Your task to perform on an android device: toggle translation in the chrome app Image 0: 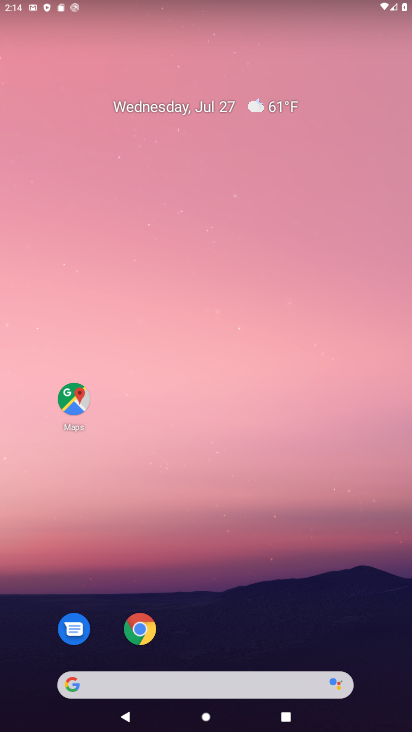
Step 0: drag from (279, 610) to (291, 65)
Your task to perform on an android device: toggle translation in the chrome app Image 1: 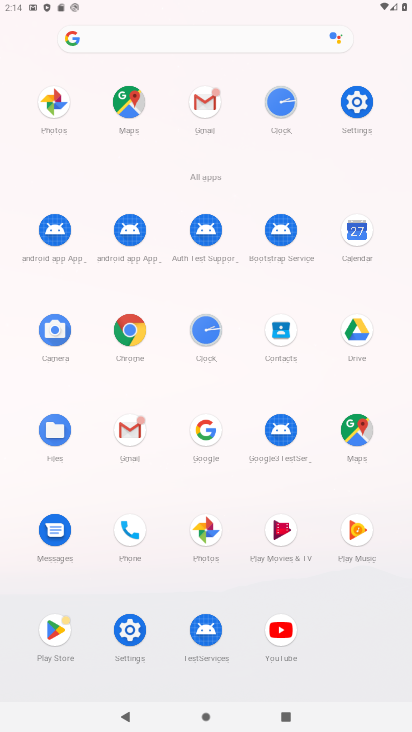
Step 1: click (129, 322)
Your task to perform on an android device: toggle translation in the chrome app Image 2: 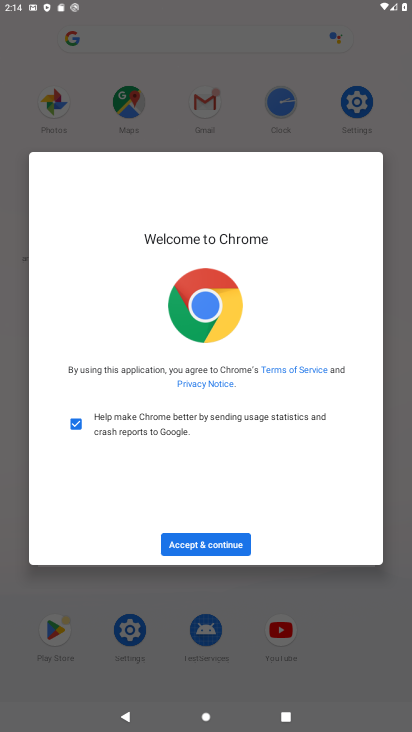
Step 2: click (236, 542)
Your task to perform on an android device: toggle translation in the chrome app Image 3: 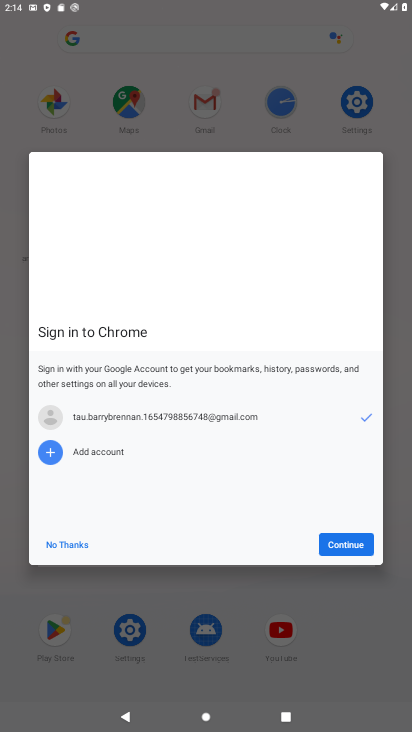
Step 3: click (335, 537)
Your task to perform on an android device: toggle translation in the chrome app Image 4: 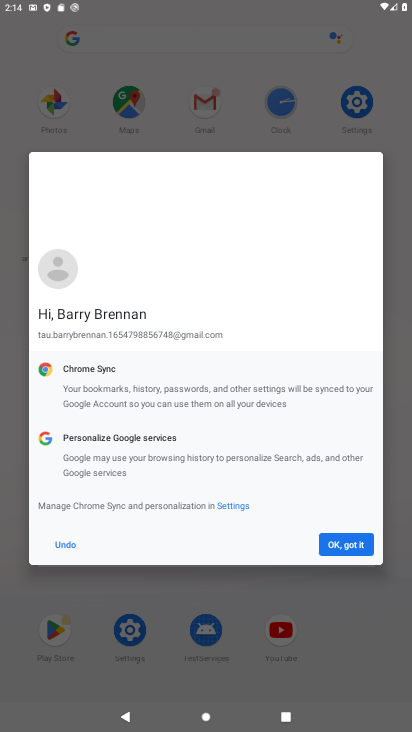
Step 4: click (335, 537)
Your task to perform on an android device: toggle translation in the chrome app Image 5: 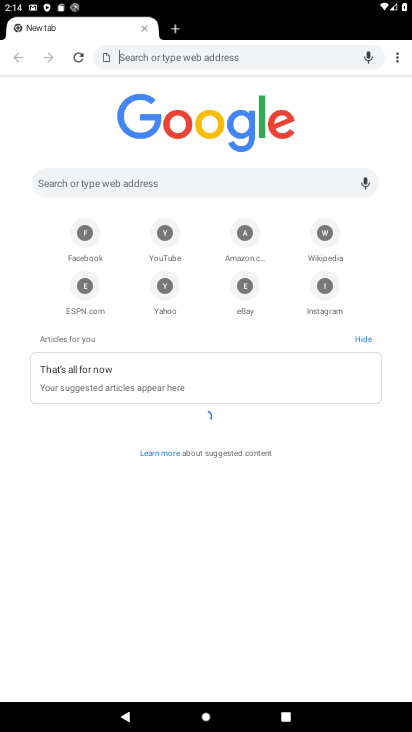
Step 5: drag from (392, 59) to (278, 262)
Your task to perform on an android device: toggle translation in the chrome app Image 6: 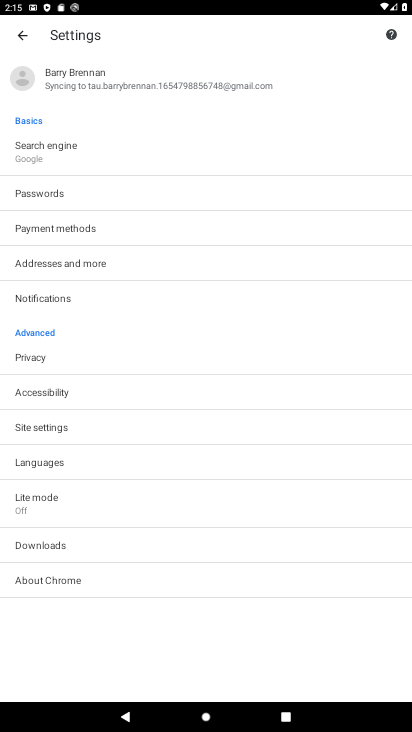
Step 6: click (69, 426)
Your task to perform on an android device: toggle translation in the chrome app Image 7: 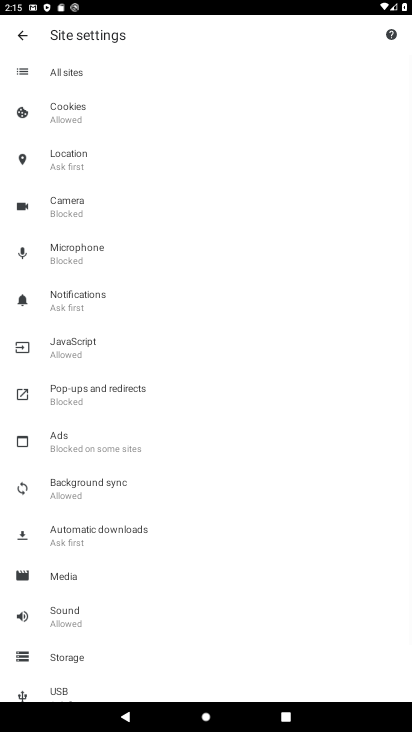
Step 7: drag from (184, 605) to (233, 249)
Your task to perform on an android device: toggle translation in the chrome app Image 8: 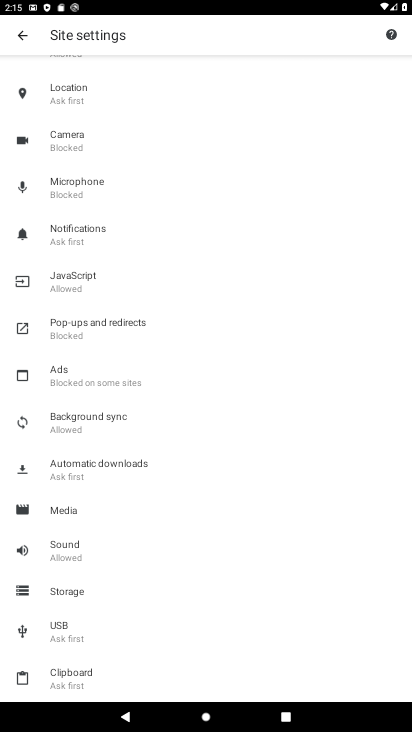
Step 8: click (26, 30)
Your task to perform on an android device: toggle translation in the chrome app Image 9: 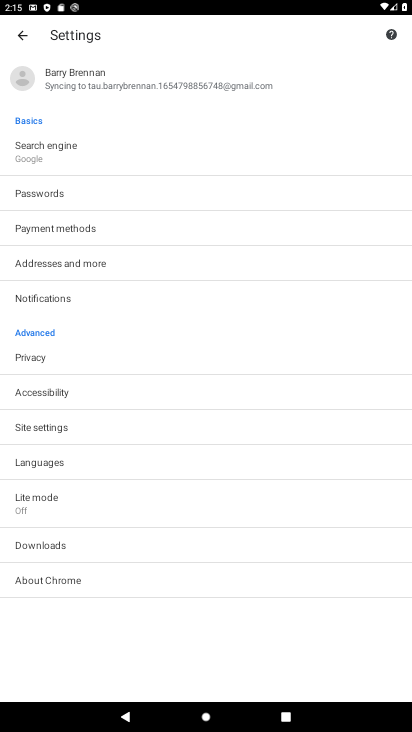
Step 9: click (54, 461)
Your task to perform on an android device: toggle translation in the chrome app Image 10: 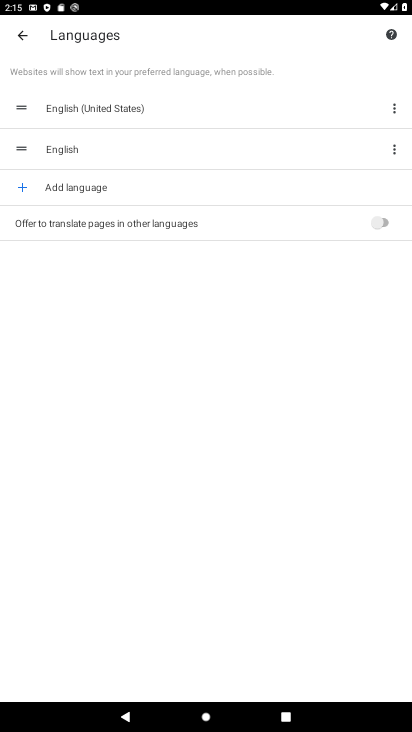
Step 10: task complete